Your task to perform on an android device: choose inbox layout in the gmail app Image 0: 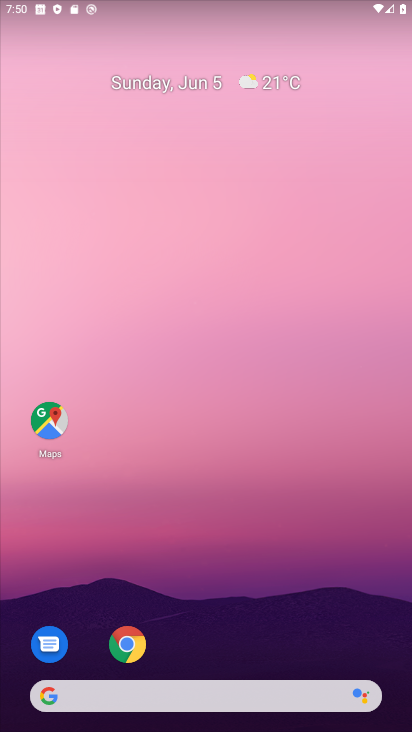
Step 0: task complete